Your task to perform on an android device: toggle improve location accuracy Image 0: 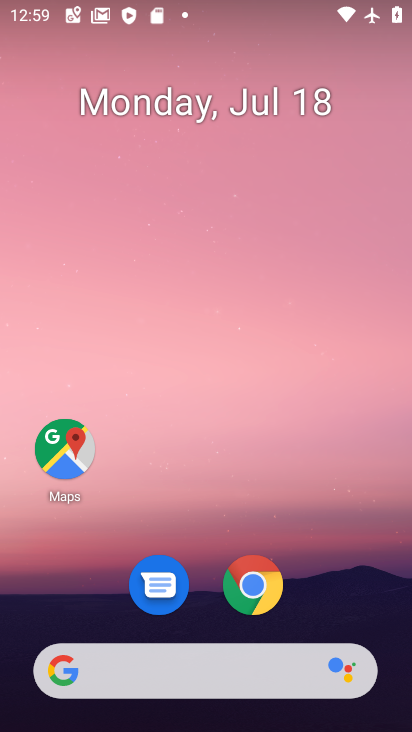
Step 0: drag from (172, 664) to (239, 168)
Your task to perform on an android device: toggle improve location accuracy Image 1: 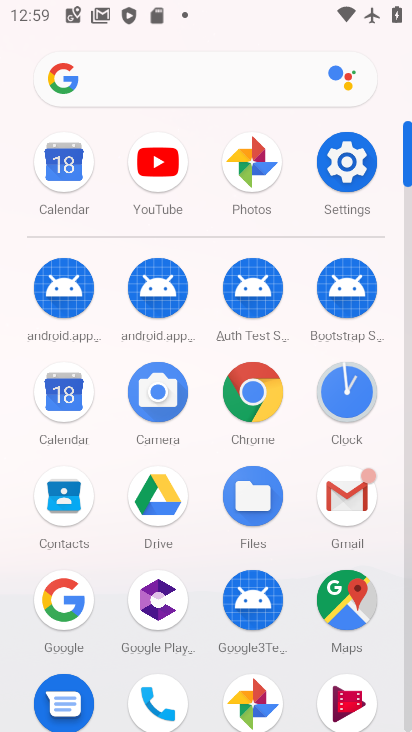
Step 1: click (338, 163)
Your task to perform on an android device: toggle improve location accuracy Image 2: 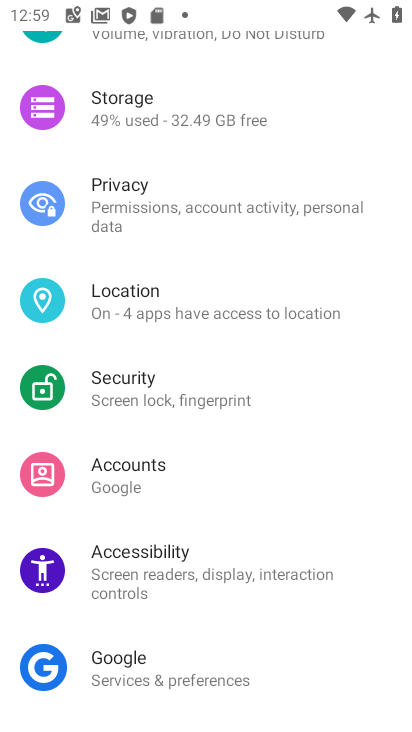
Step 2: click (159, 306)
Your task to perform on an android device: toggle improve location accuracy Image 3: 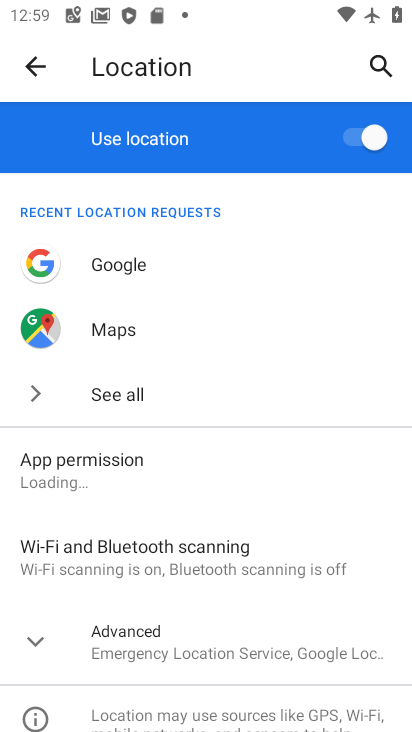
Step 3: click (181, 649)
Your task to perform on an android device: toggle improve location accuracy Image 4: 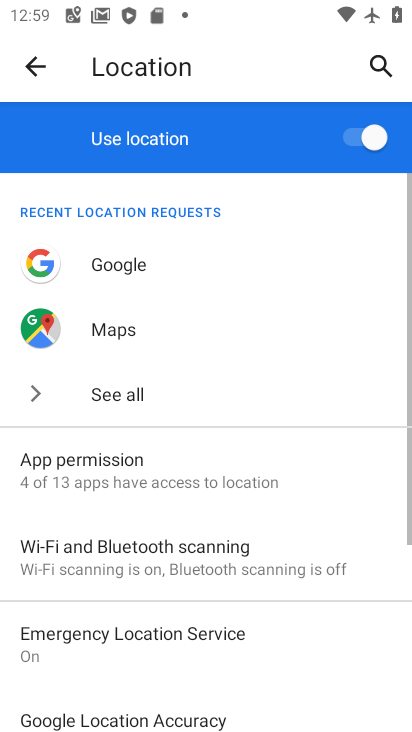
Step 4: drag from (228, 603) to (231, 248)
Your task to perform on an android device: toggle improve location accuracy Image 5: 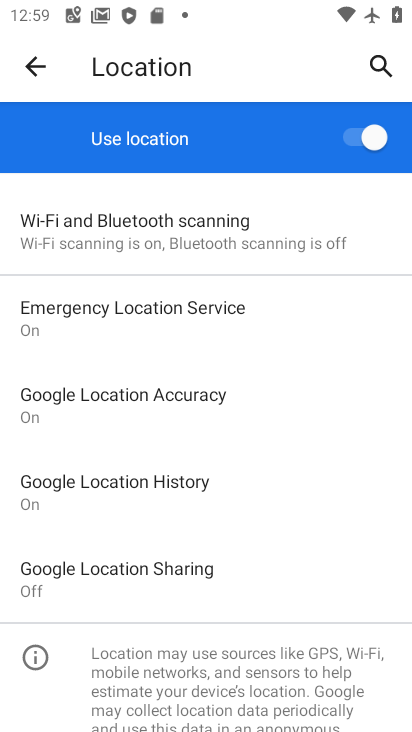
Step 5: click (93, 400)
Your task to perform on an android device: toggle improve location accuracy Image 6: 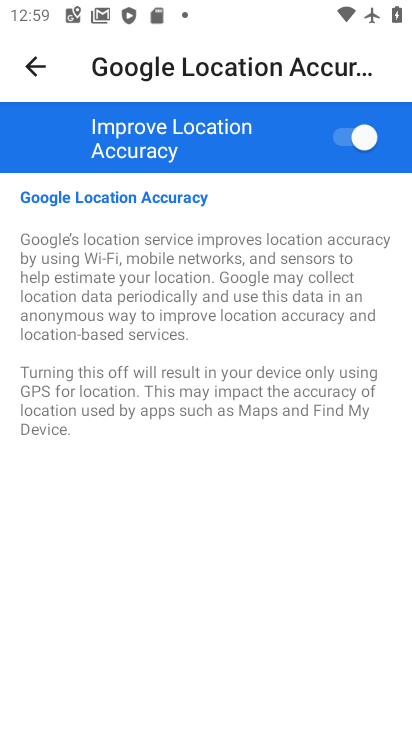
Step 6: click (344, 141)
Your task to perform on an android device: toggle improve location accuracy Image 7: 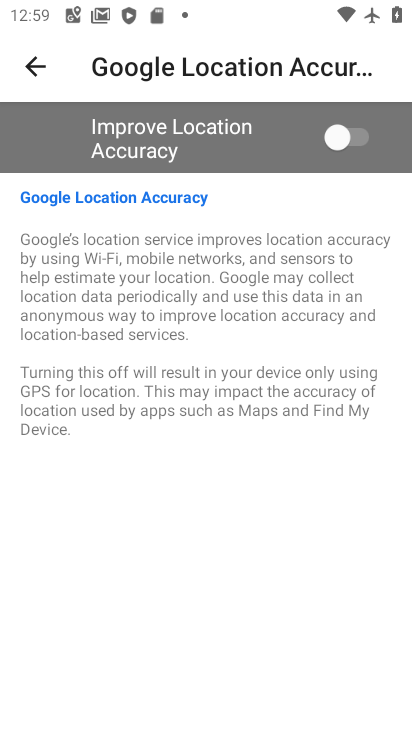
Step 7: task complete